Your task to perform on an android device: allow cookies in the chrome app Image 0: 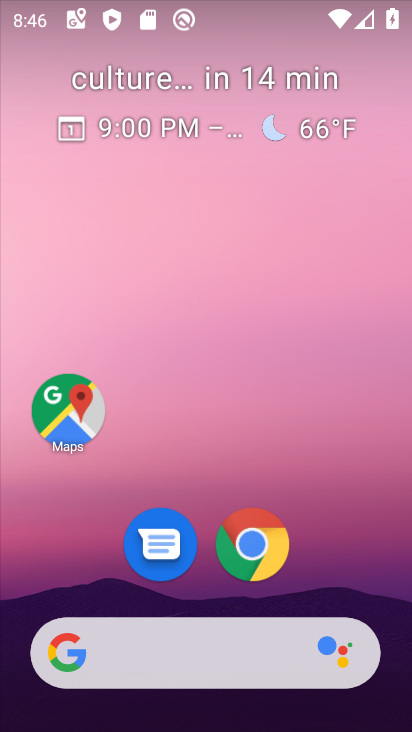
Step 0: drag from (192, 601) to (270, 244)
Your task to perform on an android device: allow cookies in the chrome app Image 1: 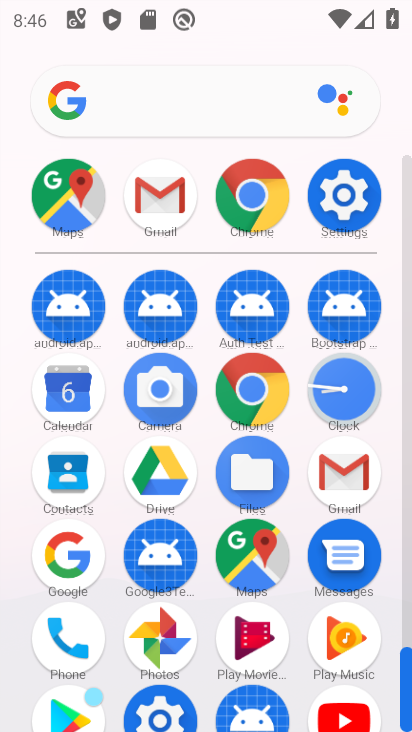
Step 1: click (252, 186)
Your task to perform on an android device: allow cookies in the chrome app Image 2: 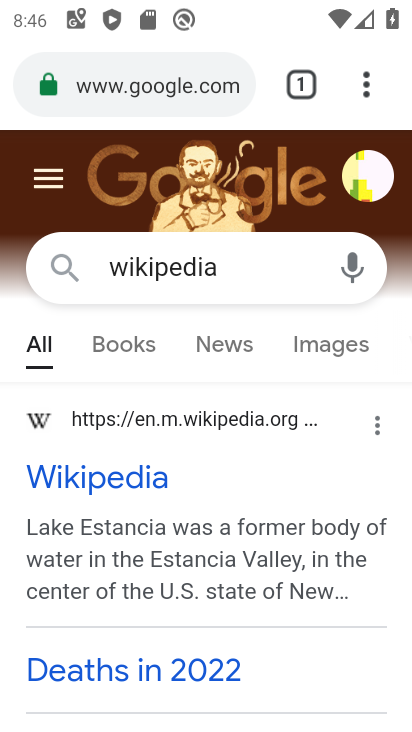
Step 2: click (369, 89)
Your task to perform on an android device: allow cookies in the chrome app Image 3: 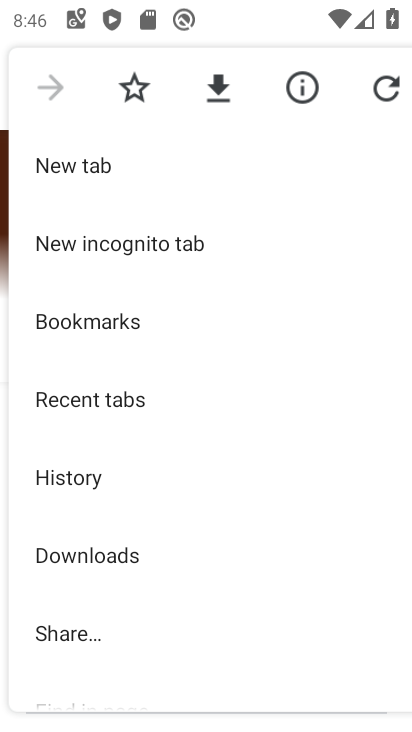
Step 3: drag from (136, 583) to (270, 186)
Your task to perform on an android device: allow cookies in the chrome app Image 4: 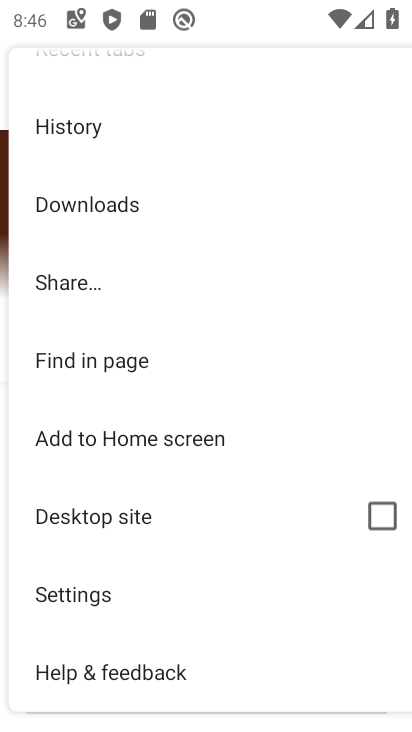
Step 4: click (125, 603)
Your task to perform on an android device: allow cookies in the chrome app Image 5: 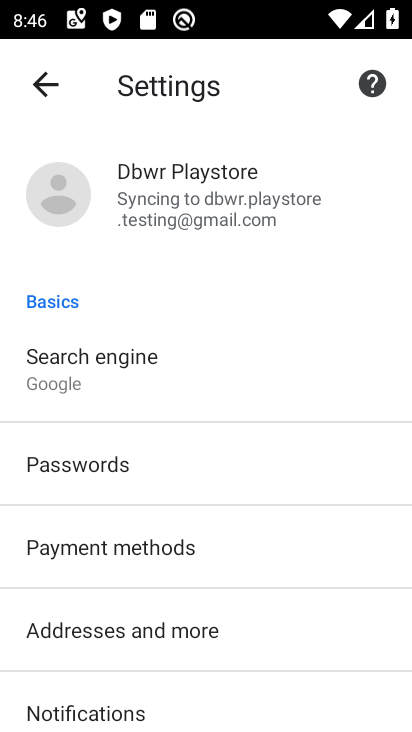
Step 5: drag from (176, 670) to (331, 158)
Your task to perform on an android device: allow cookies in the chrome app Image 6: 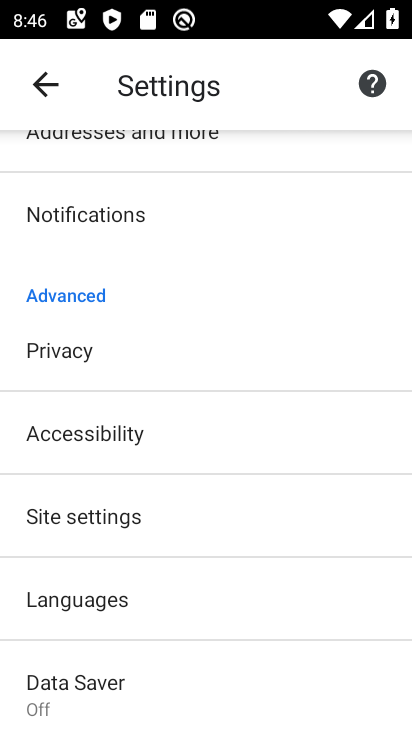
Step 6: drag from (153, 622) to (218, 241)
Your task to perform on an android device: allow cookies in the chrome app Image 7: 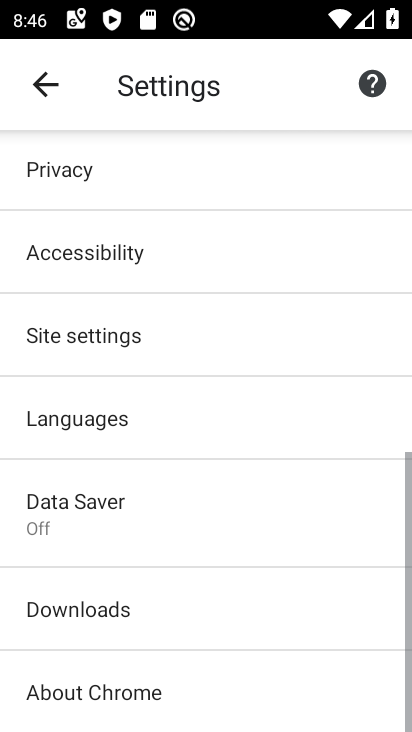
Step 7: click (95, 348)
Your task to perform on an android device: allow cookies in the chrome app Image 8: 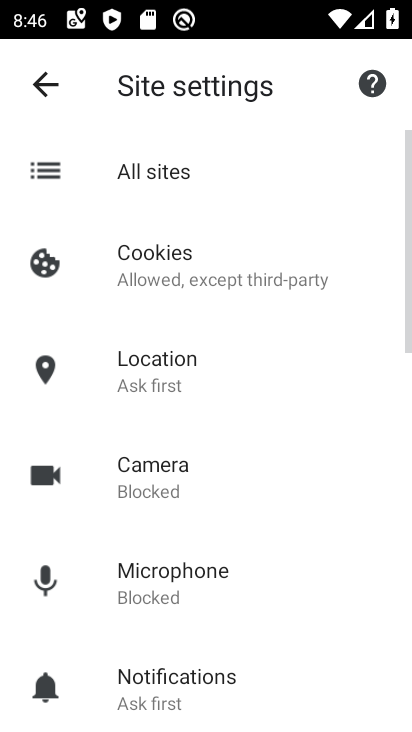
Step 8: click (178, 256)
Your task to perform on an android device: allow cookies in the chrome app Image 9: 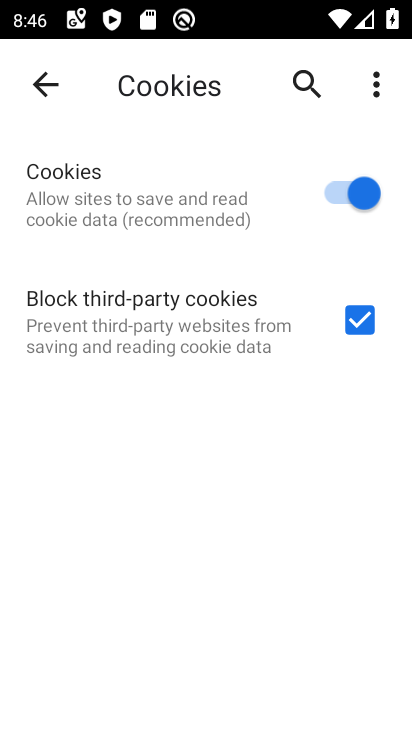
Step 9: task complete